Your task to perform on an android device: Go to display settings Image 0: 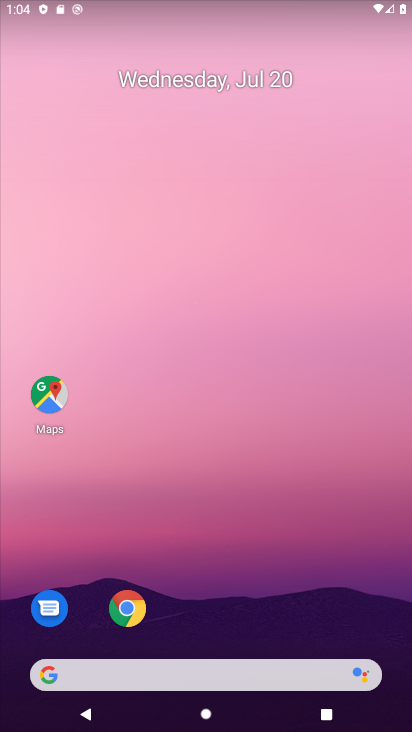
Step 0: drag from (302, 551) to (389, 79)
Your task to perform on an android device: Go to display settings Image 1: 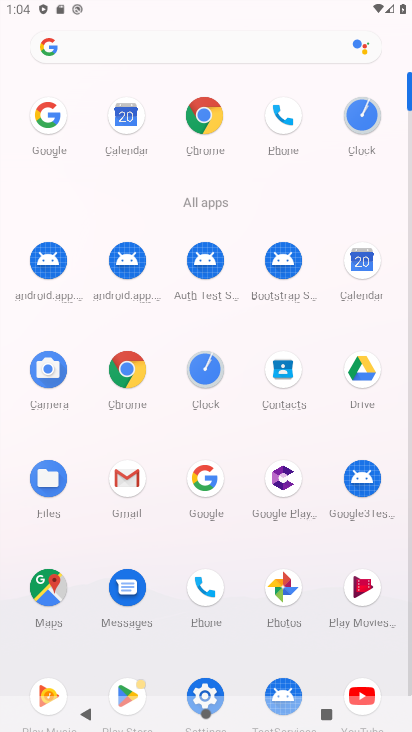
Step 1: click (202, 696)
Your task to perform on an android device: Go to display settings Image 2: 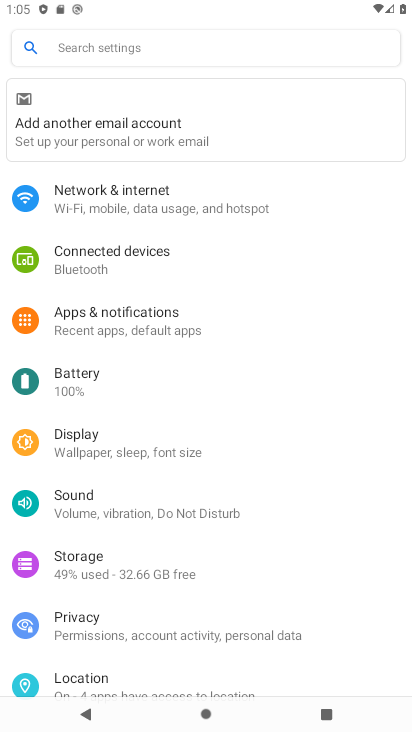
Step 2: click (83, 446)
Your task to perform on an android device: Go to display settings Image 3: 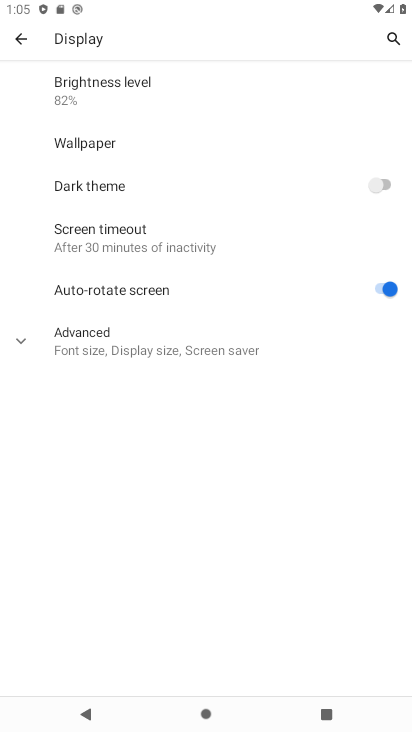
Step 3: task complete